Your task to perform on an android device: allow cookies in the chrome app Image 0: 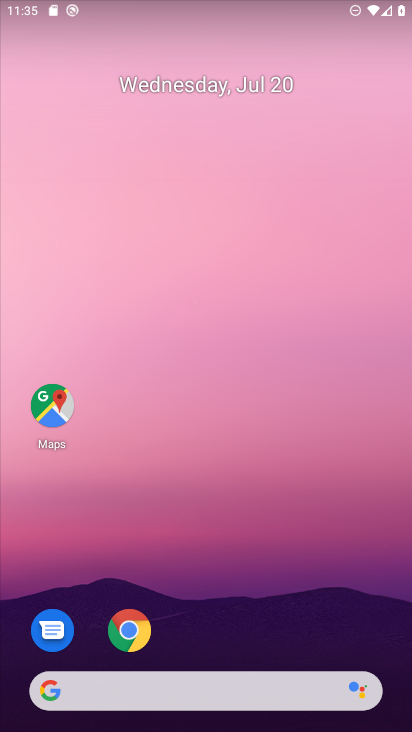
Step 0: click (137, 631)
Your task to perform on an android device: allow cookies in the chrome app Image 1: 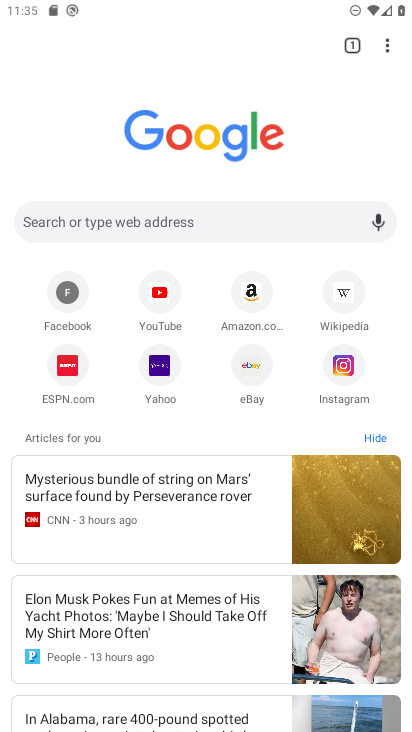
Step 1: click (387, 39)
Your task to perform on an android device: allow cookies in the chrome app Image 2: 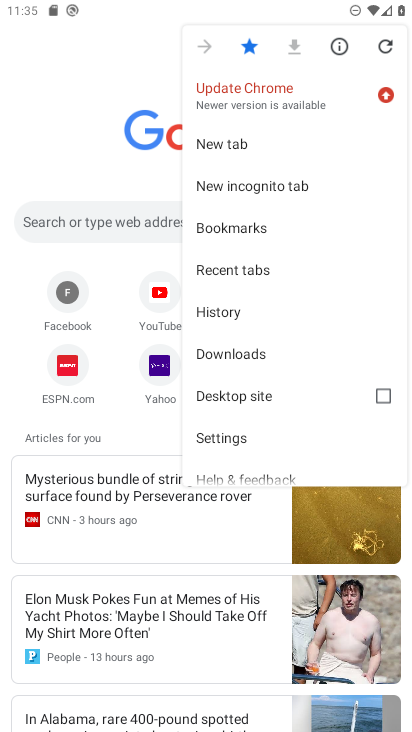
Step 2: click (227, 443)
Your task to perform on an android device: allow cookies in the chrome app Image 3: 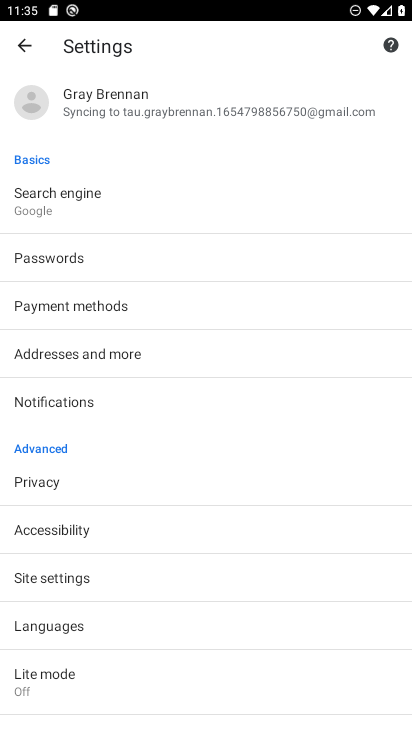
Step 3: click (62, 579)
Your task to perform on an android device: allow cookies in the chrome app Image 4: 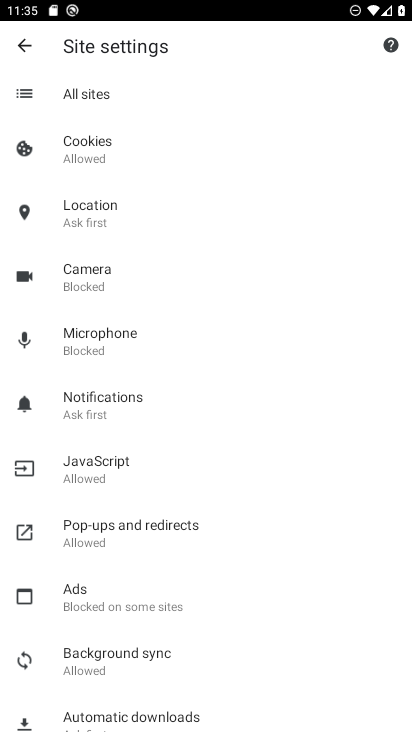
Step 4: click (99, 145)
Your task to perform on an android device: allow cookies in the chrome app Image 5: 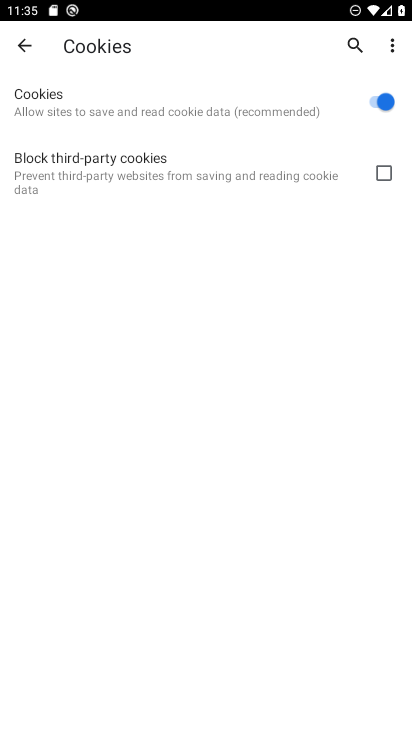
Step 5: task complete